Your task to perform on an android device: Open location settings Image 0: 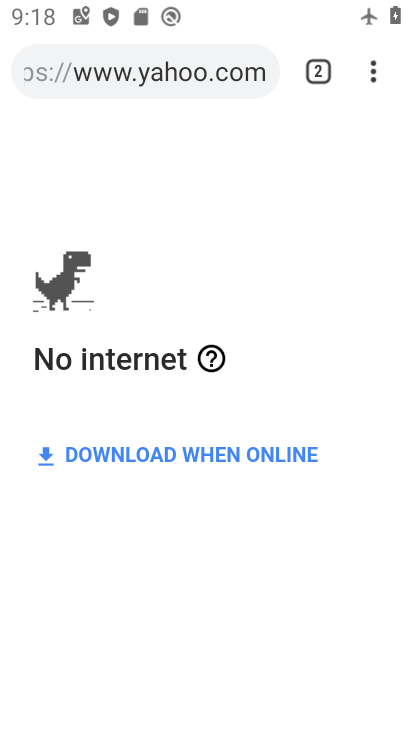
Step 0: drag from (177, 644) to (225, 210)
Your task to perform on an android device: Open location settings Image 1: 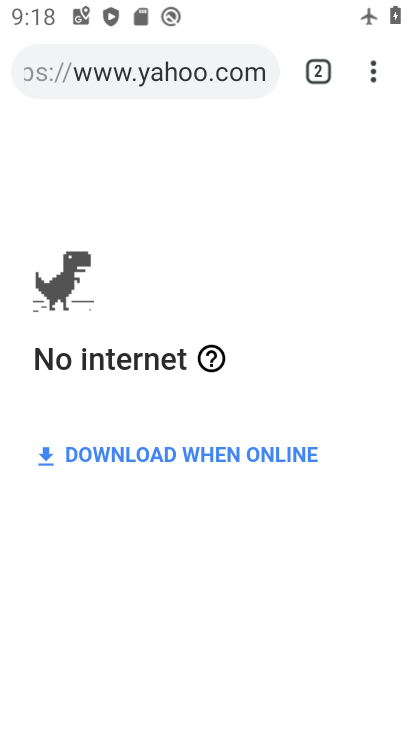
Step 1: press home button
Your task to perform on an android device: Open location settings Image 2: 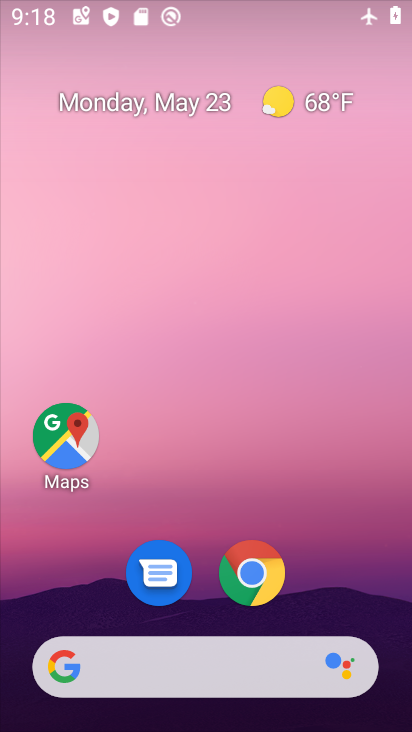
Step 2: drag from (187, 627) to (209, 193)
Your task to perform on an android device: Open location settings Image 3: 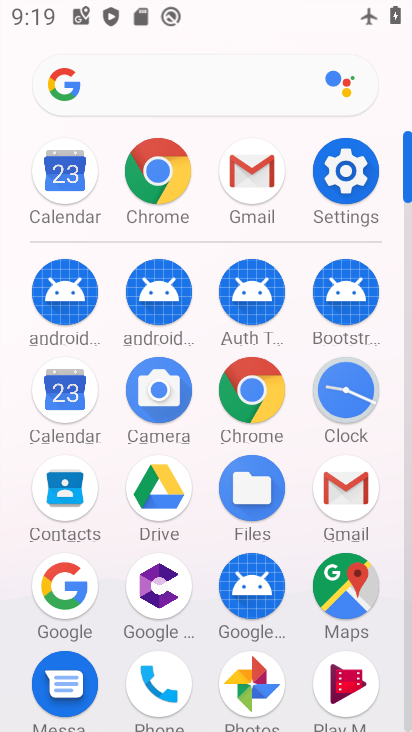
Step 3: click (359, 179)
Your task to perform on an android device: Open location settings Image 4: 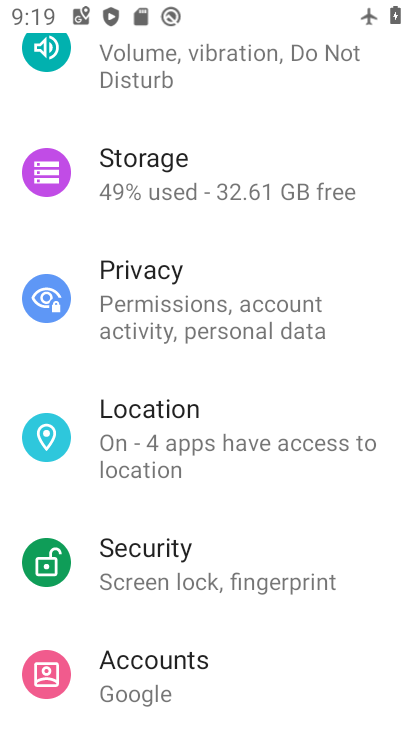
Step 4: drag from (209, 225) to (219, 521)
Your task to perform on an android device: Open location settings Image 5: 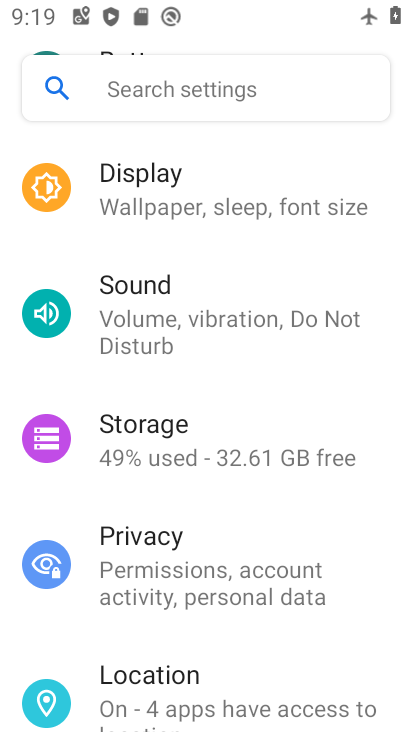
Step 5: click (206, 675)
Your task to perform on an android device: Open location settings Image 6: 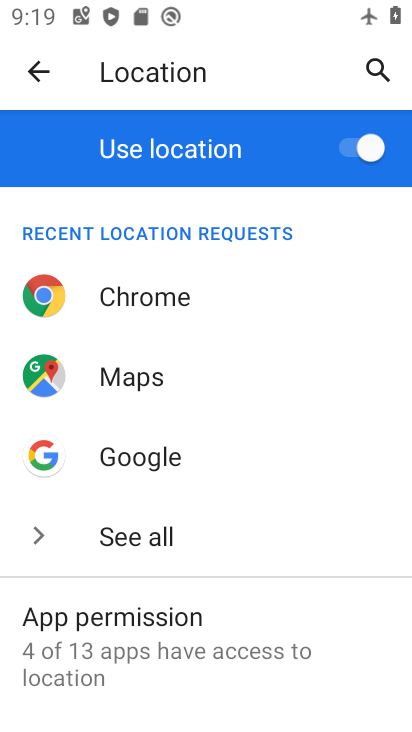
Step 6: task complete